Your task to perform on an android device: Open the Play Movies app and select the watchlist tab. Image 0: 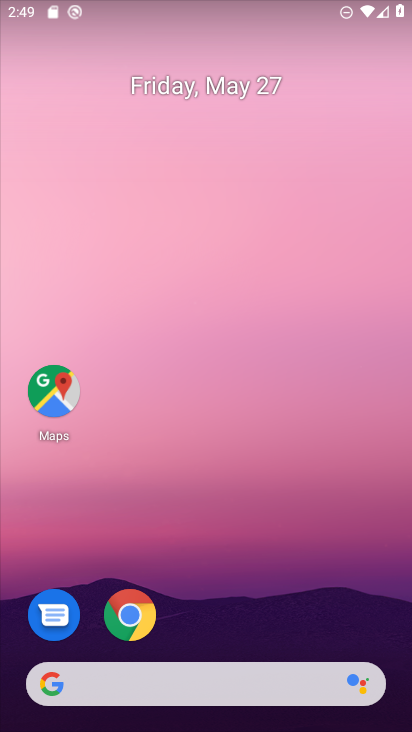
Step 0: drag from (282, 579) to (198, 3)
Your task to perform on an android device: Open the Play Movies app and select the watchlist tab. Image 1: 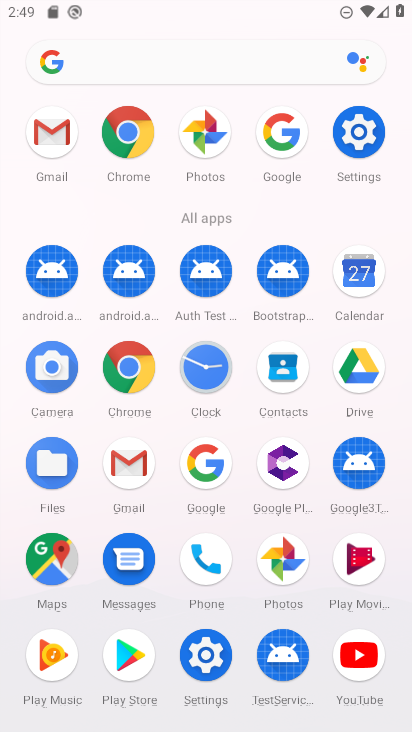
Step 1: click (346, 573)
Your task to perform on an android device: Open the Play Movies app and select the watchlist tab. Image 2: 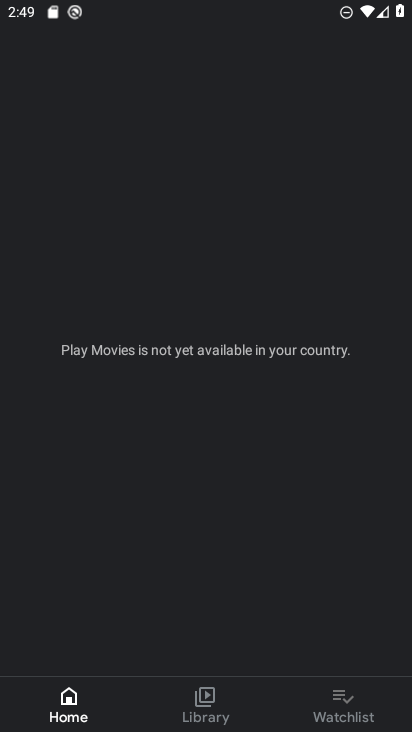
Step 2: click (336, 706)
Your task to perform on an android device: Open the Play Movies app and select the watchlist tab. Image 3: 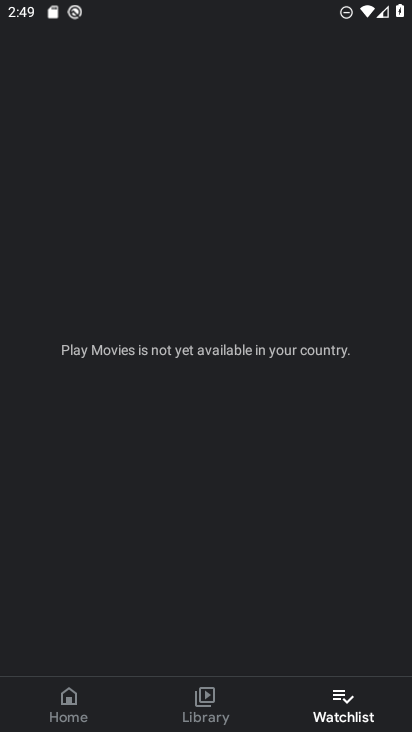
Step 3: task complete